Your task to perform on an android device: turn vacation reply on in the gmail app Image 0: 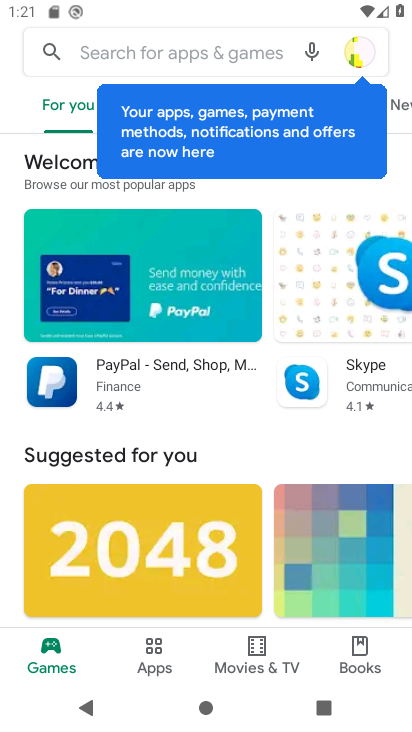
Step 0: press home button
Your task to perform on an android device: turn vacation reply on in the gmail app Image 1: 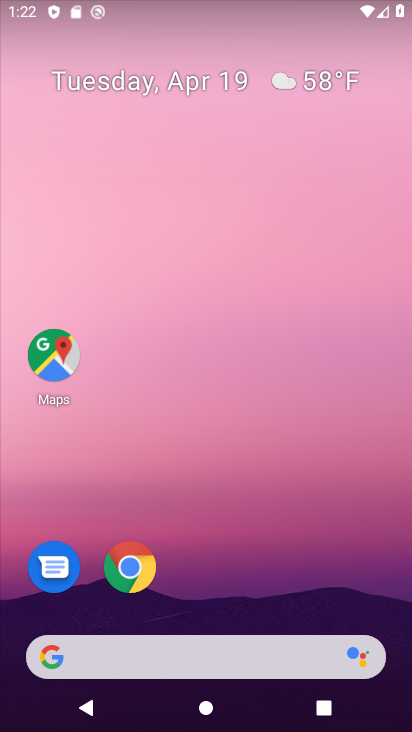
Step 1: drag from (394, 583) to (327, 92)
Your task to perform on an android device: turn vacation reply on in the gmail app Image 2: 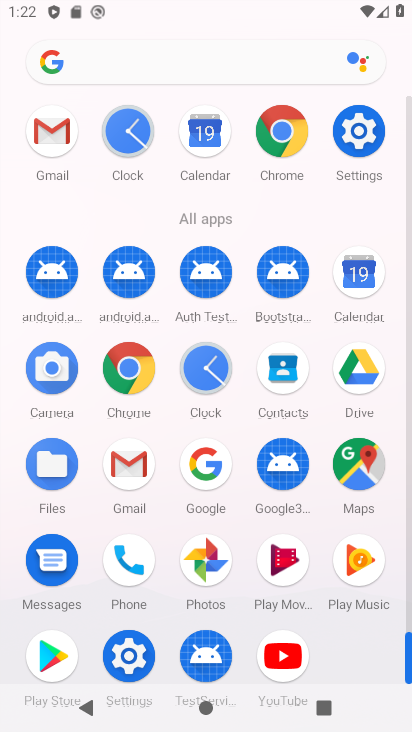
Step 2: click (130, 460)
Your task to perform on an android device: turn vacation reply on in the gmail app Image 3: 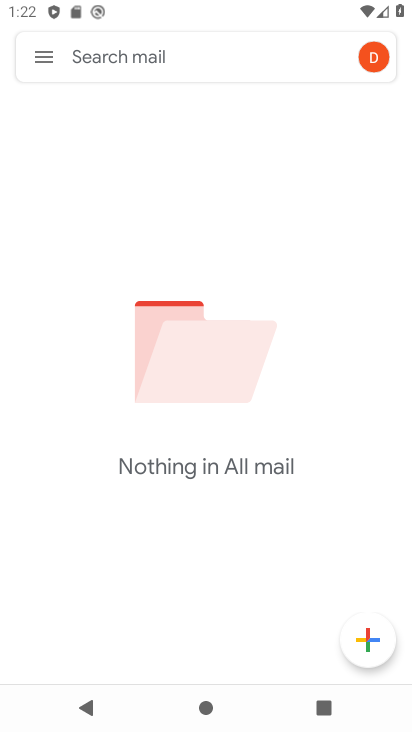
Step 3: click (43, 53)
Your task to perform on an android device: turn vacation reply on in the gmail app Image 4: 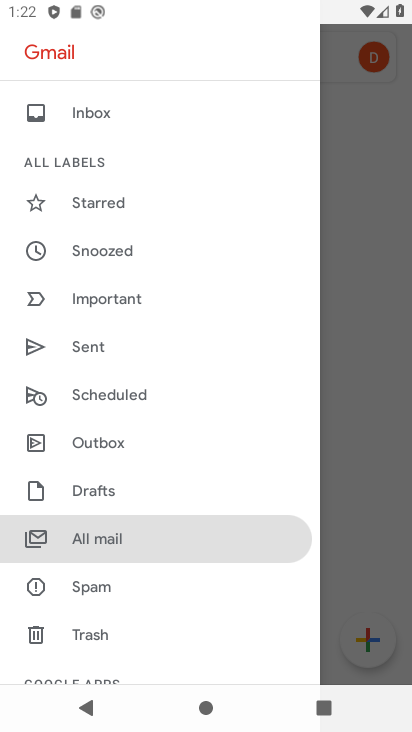
Step 4: drag from (219, 631) to (277, 141)
Your task to perform on an android device: turn vacation reply on in the gmail app Image 5: 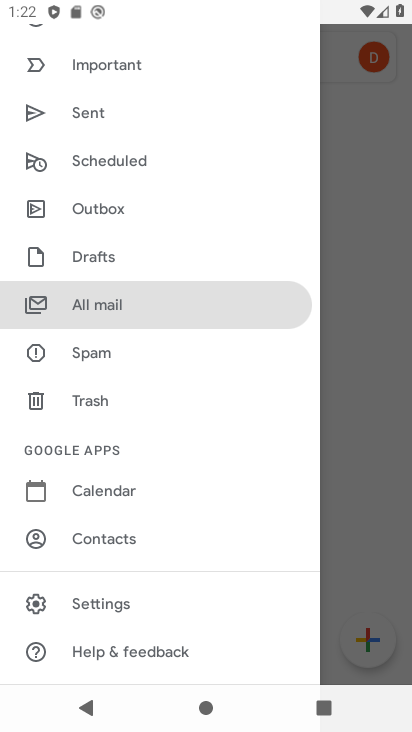
Step 5: click (110, 592)
Your task to perform on an android device: turn vacation reply on in the gmail app Image 6: 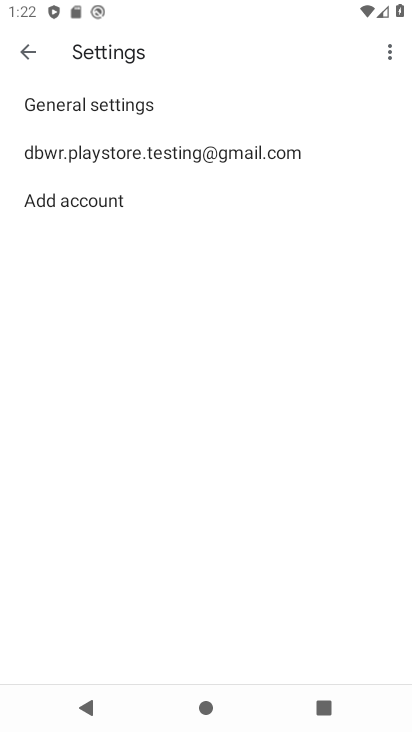
Step 6: click (147, 145)
Your task to perform on an android device: turn vacation reply on in the gmail app Image 7: 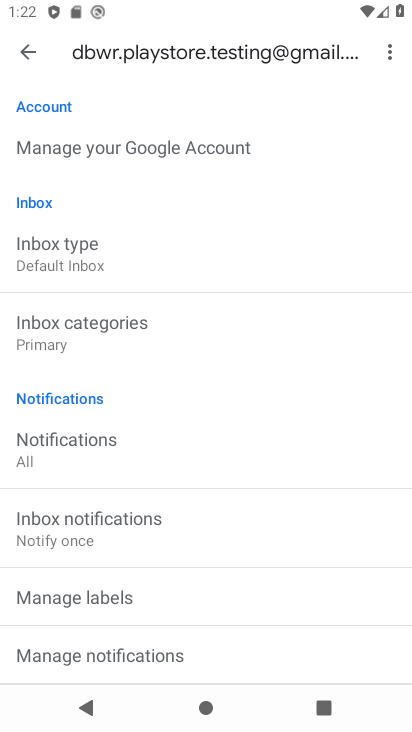
Step 7: drag from (255, 618) to (310, 190)
Your task to perform on an android device: turn vacation reply on in the gmail app Image 8: 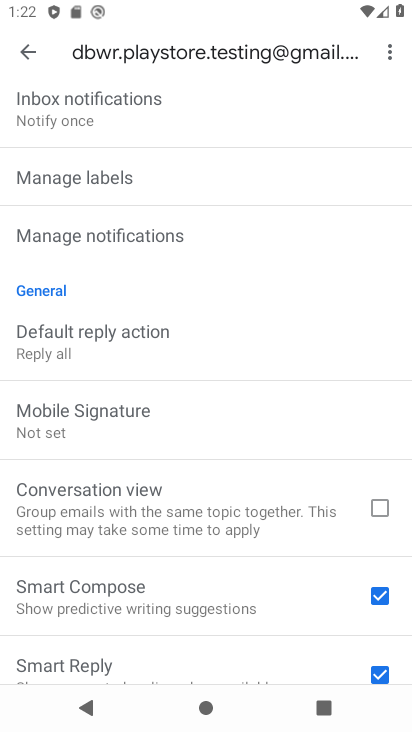
Step 8: drag from (302, 633) to (309, 91)
Your task to perform on an android device: turn vacation reply on in the gmail app Image 9: 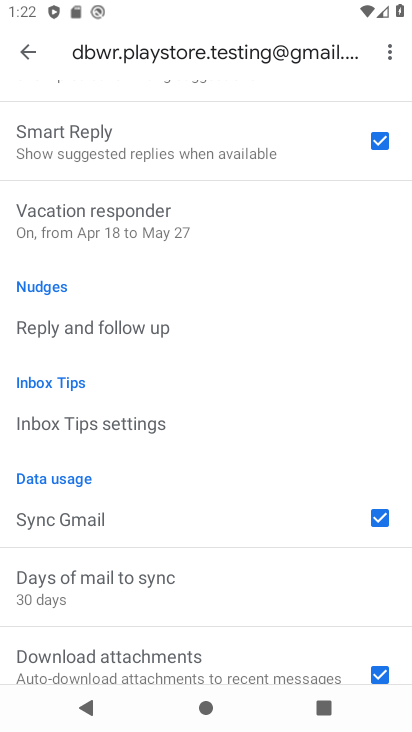
Step 9: click (102, 228)
Your task to perform on an android device: turn vacation reply on in the gmail app Image 10: 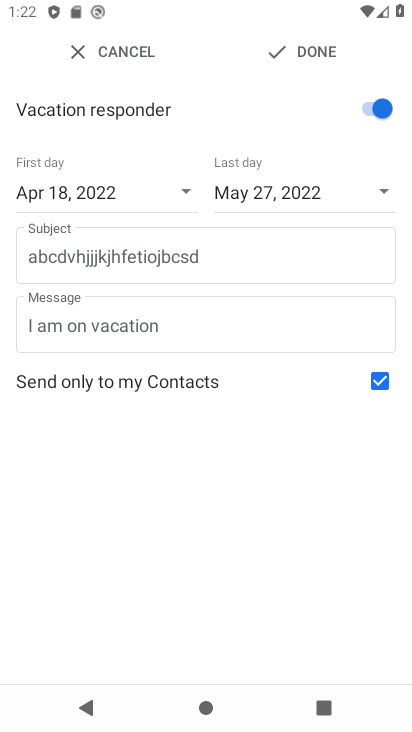
Step 10: task complete